Your task to perform on an android device: Go to Amazon Image 0: 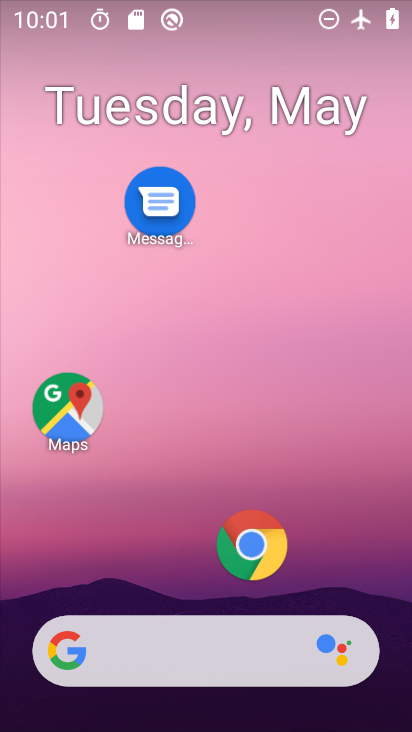
Step 0: click (257, 562)
Your task to perform on an android device: Go to Amazon Image 1: 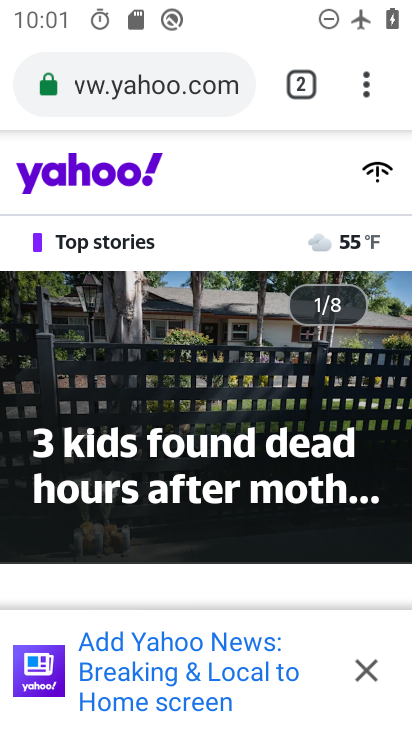
Step 1: click (297, 88)
Your task to perform on an android device: Go to Amazon Image 2: 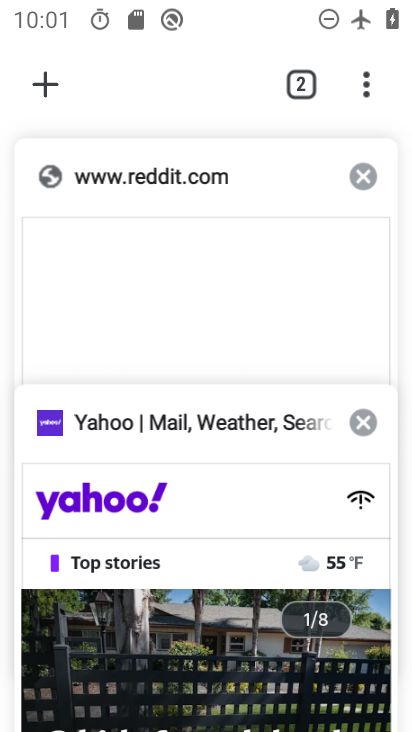
Step 2: click (33, 89)
Your task to perform on an android device: Go to Amazon Image 3: 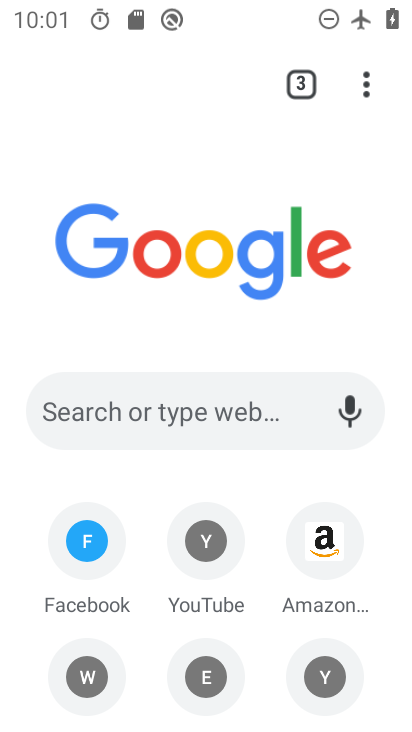
Step 3: click (314, 564)
Your task to perform on an android device: Go to Amazon Image 4: 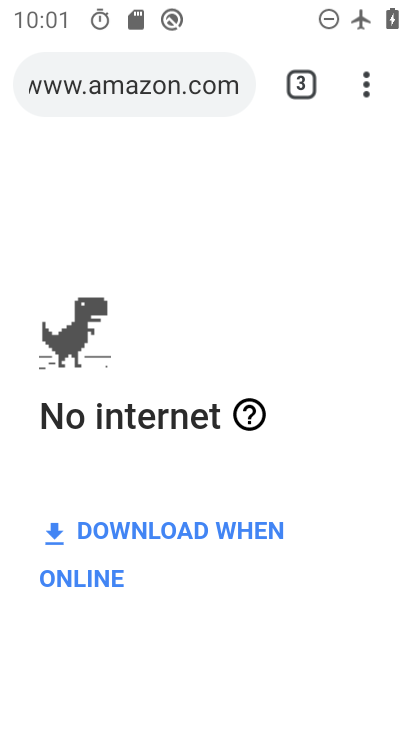
Step 4: task complete